Your task to perform on an android device: Open Amazon Image 0: 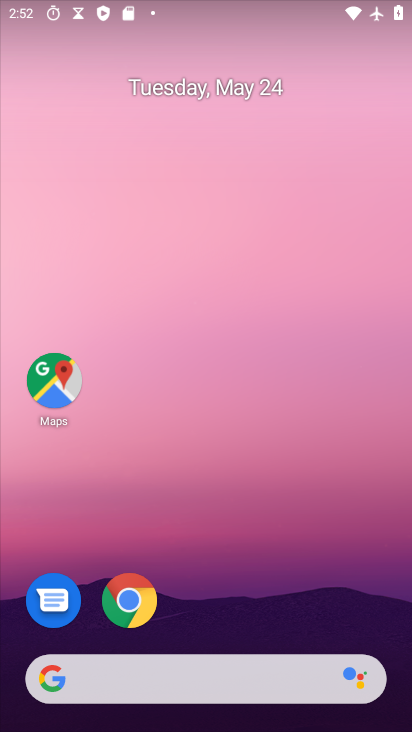
Step 0: click (139, 606)
Your task to perform on an android device: Open Amazon Image 1: 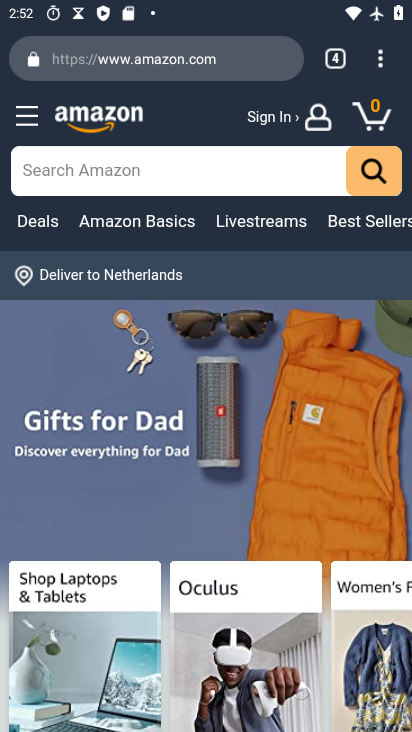
Step 1: task complete